Your task to perform on an android device: check out phone information Image 0: 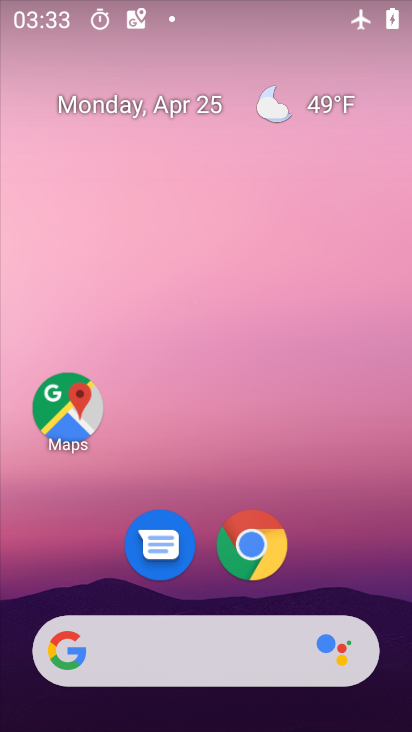
Step 0: drag from (204, 473) to (227, 5)
Your task to perform on an android device: check out phone information Image 1: 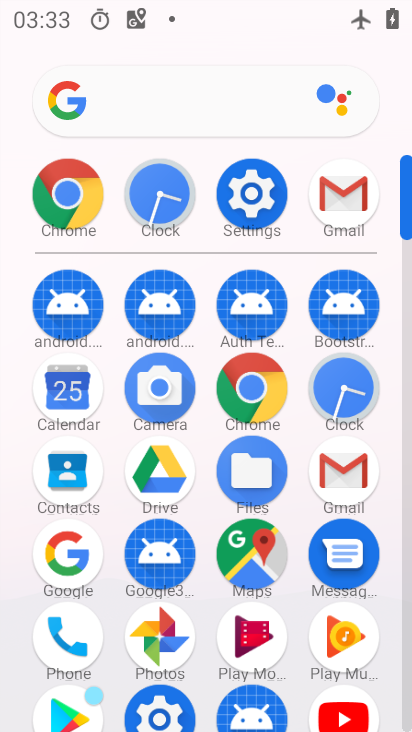
Step 1: click (250, 194)
Your task to perform on an android device: check out phone information Image 2: 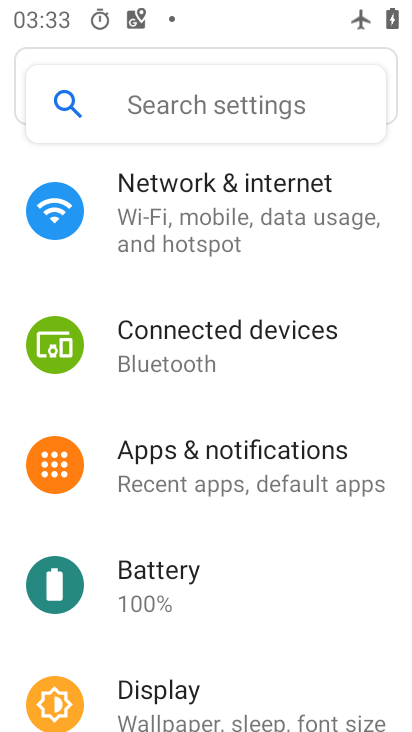
Step 2: drag from (237, 562) to (235, 474)
Your task to perform on an android device: check out phone information Image 3: 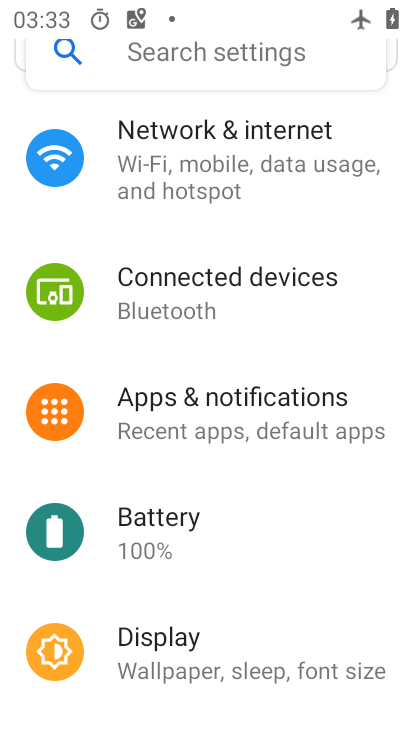
Step 3: drag from (224, 586) to (245, 523)
Your task to perform on an android device: check out phone information Image 4: 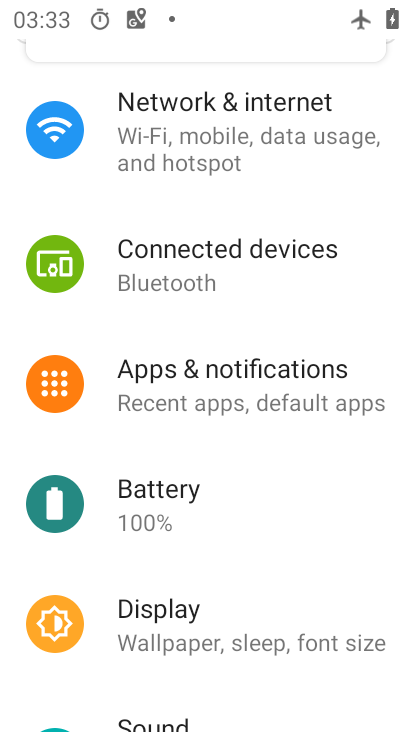
Step 4: drag from (211, 578) to (258, 508)
Your task to perform on an android device: check out phone information Image 5: 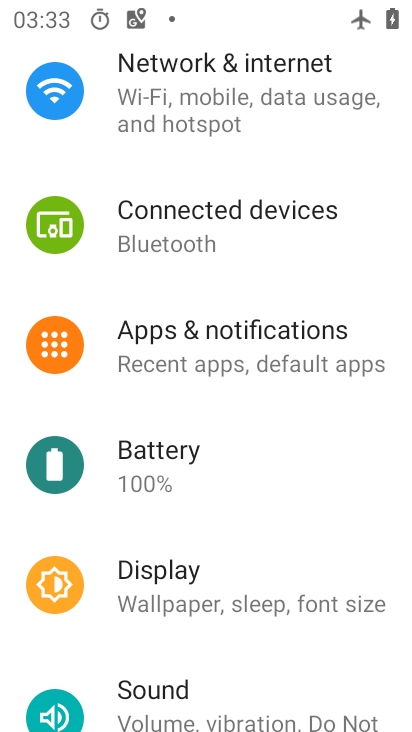
Step 5: drag from (241, 647) to (295, 563)
Your task to perform on an android device: check out phone information Image 6: 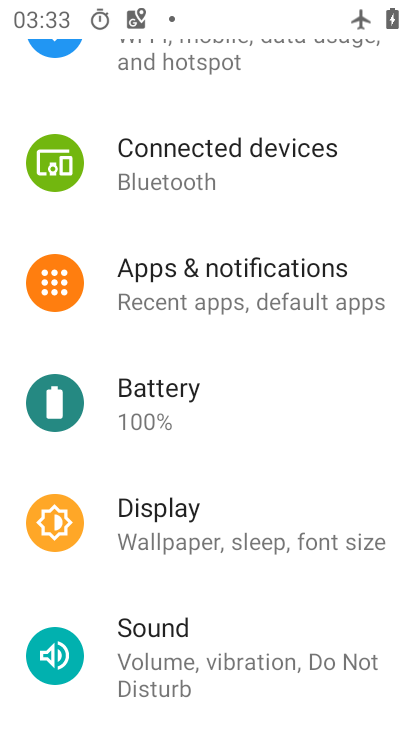
Step 6: drag from (252, 693) to (300, 530)
Your task to perform on an android device: check out phone information Image 7: 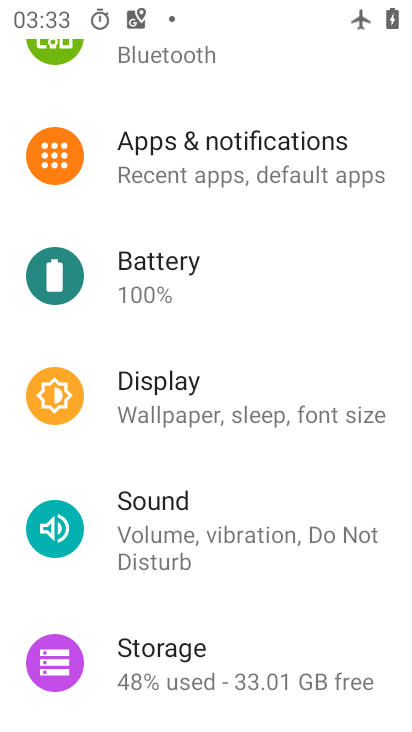
Step 7: drag from (213, 598) to (259, 462)
Your task to perform on an android device: check out phone information Image 8: 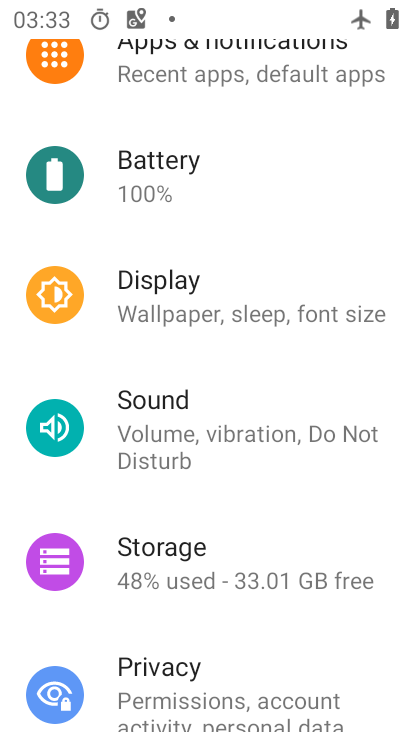
Step 8: drag from (225, 623) to (298, 485)
Your task to perform on an android device: check out phone information Image 9: 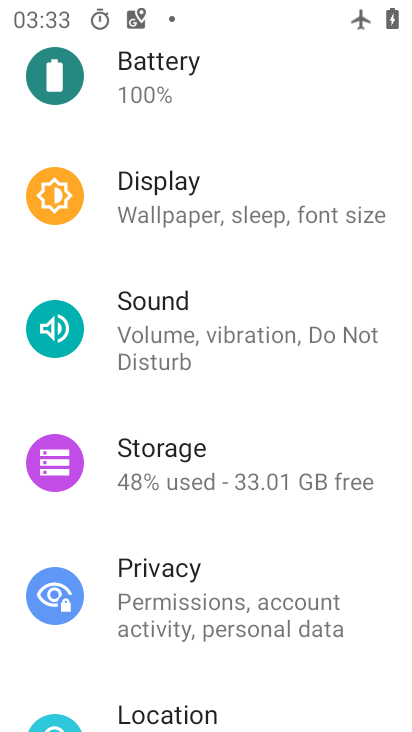
Step 9: drag from (201, 659) to (284, 492)
Your task to perform on an android device: check out phone information Image 10: 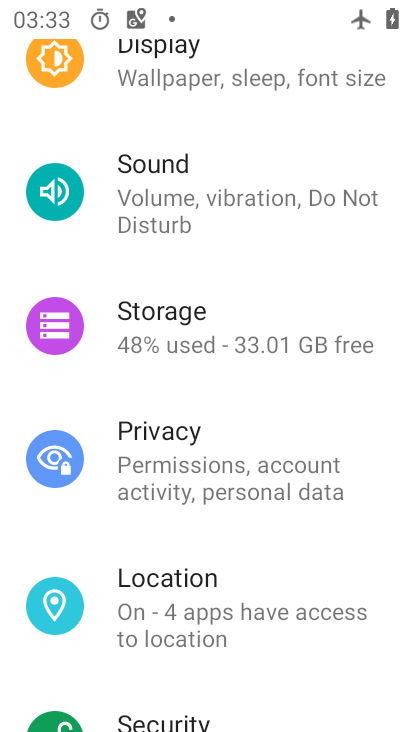
Step 10: drag from (245, 558) to (304, 425)
Your task to perform on an android device: check out phone information Image 11: 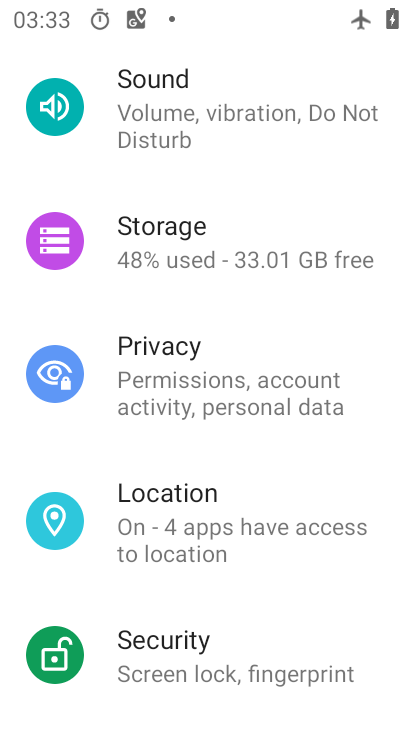
Step 11: drag from (234, 576) to (286, 445)
Your task to perform on an android device: check out phone information Image 12: 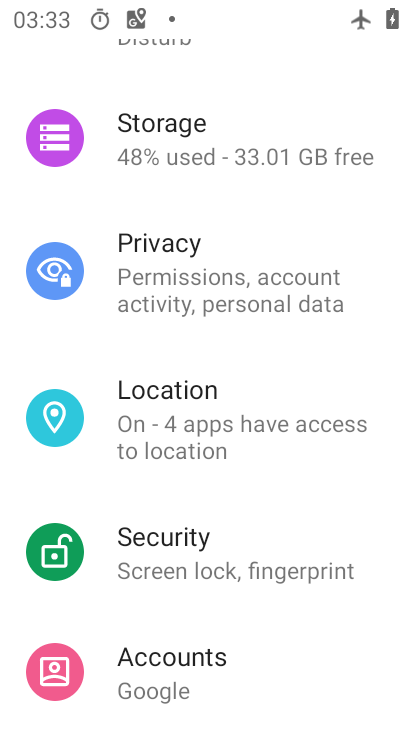
Step 12: drag from (219, 603) to (290, 466)
Your task to perform on an android device: check out phone information Image 13: 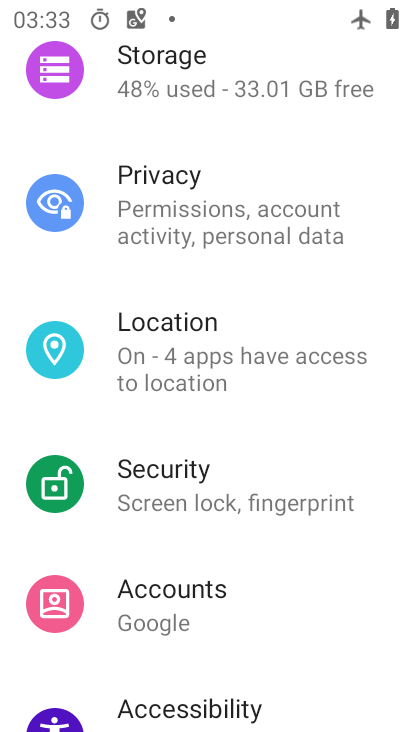
Step 13: drag from (234, 601) to (287, 454)
Your task to perform on an android device: check out phone information Image 14: 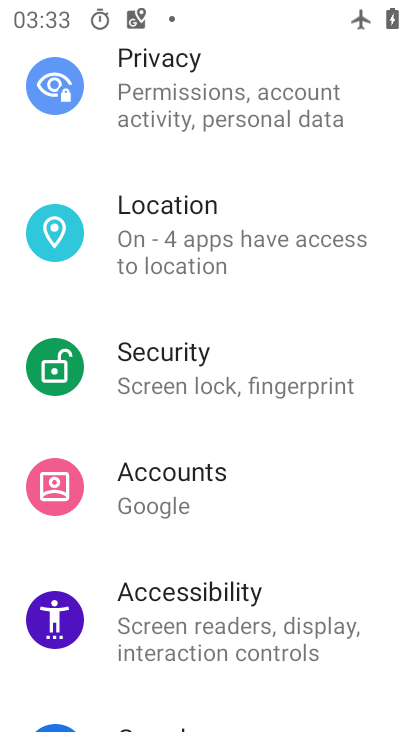
Step 14: drag from (219, 555) to (277, 445)
Your task to perform on an android device: check out phone information Image 15: 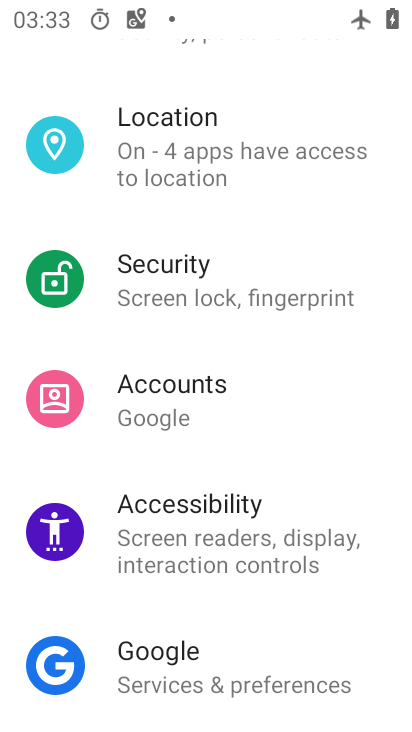
Step 15: drag from (206, 637) to (277, 432)
Your task to perform on an android device: check out phone information Image 16: 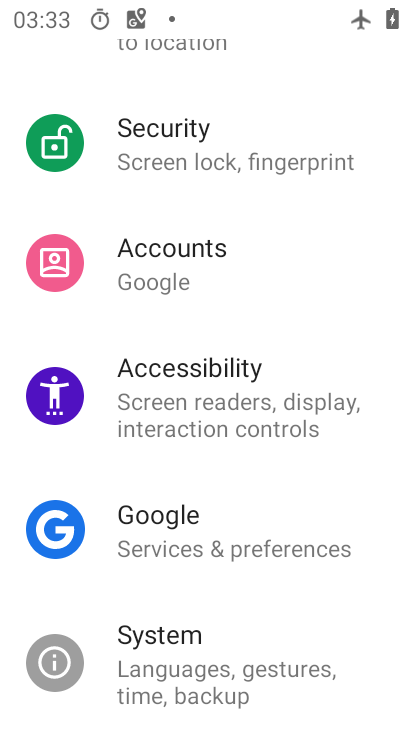
Step 16: drag from (208, 629) to (293, 499)
Your task to perform on an android device: check out phone information Image 17: 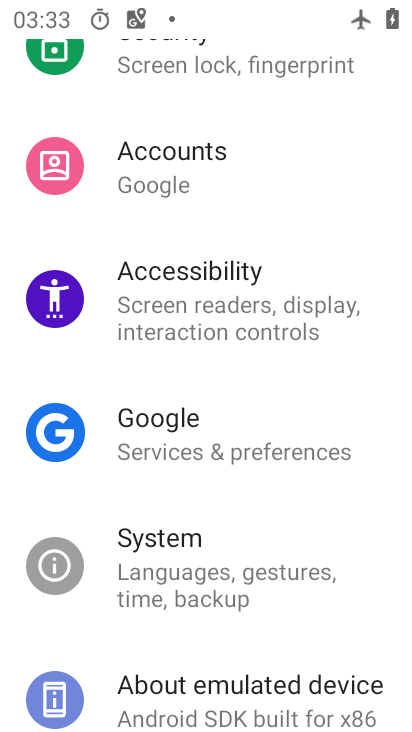
Step 17: drag from (213, 658) to (292, 535)
Your task to perform on an android device: check out phone information Image 18: 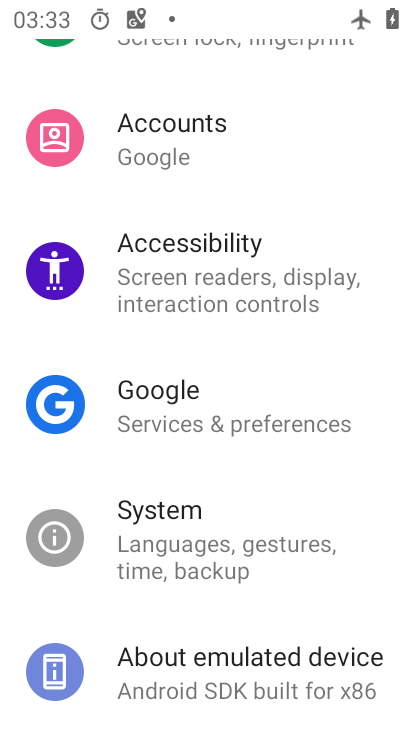
Step 18: click (221, 655)
Your task to perform on an android device: check out phone information Image 19: 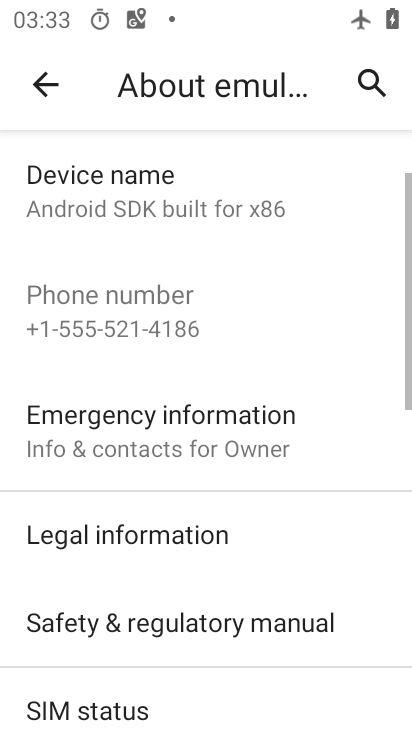
Step 19: task complete